Your task to perform on an android device: Is it going to rain tomorrow? Image 0: 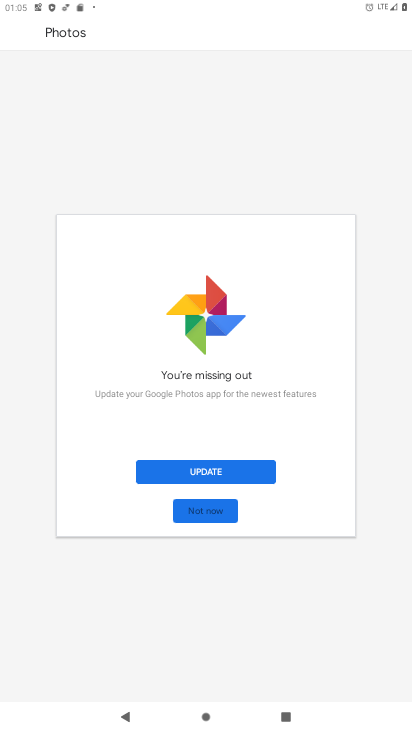
Step 0: press home button
Your task to perform on an android device: Is it going to rain tomorrow? Image 1: 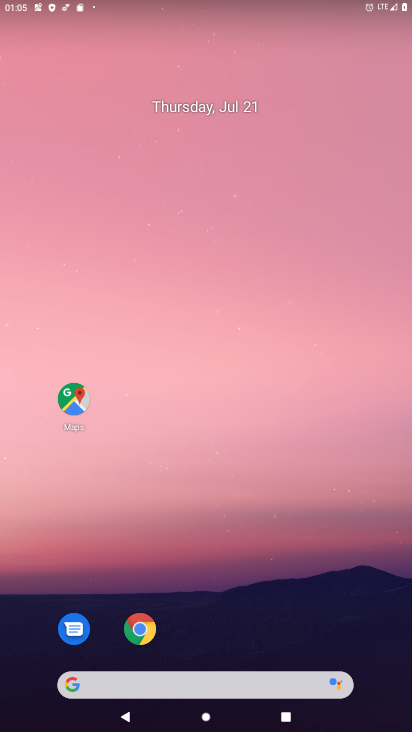
Step 1: click (156, 62)
Your task to perform on an android device: Is it going to rain tomorrow? Image 2: 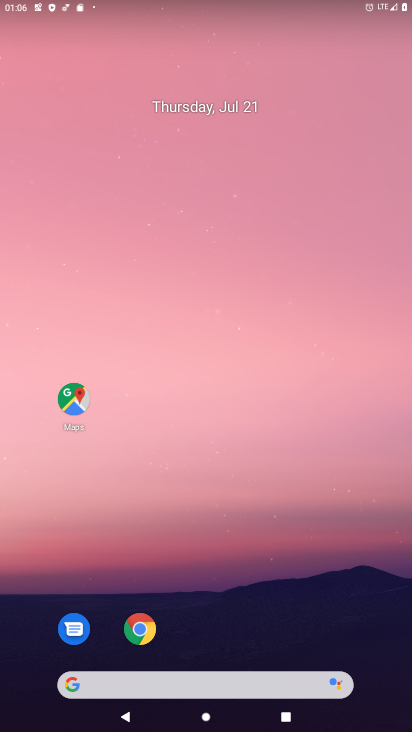
Step 2: drag from (273, 630) to (256, 7)
Your task to perform on an android device: Is it going to rain tomorrow? Image 3: 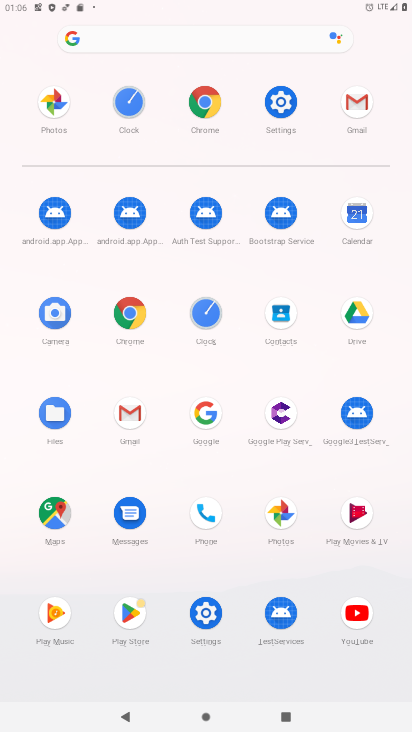
Step 3: click (195, 102)
Your task to perform on an android device: Is it going to rain tomorrow? Image 4: 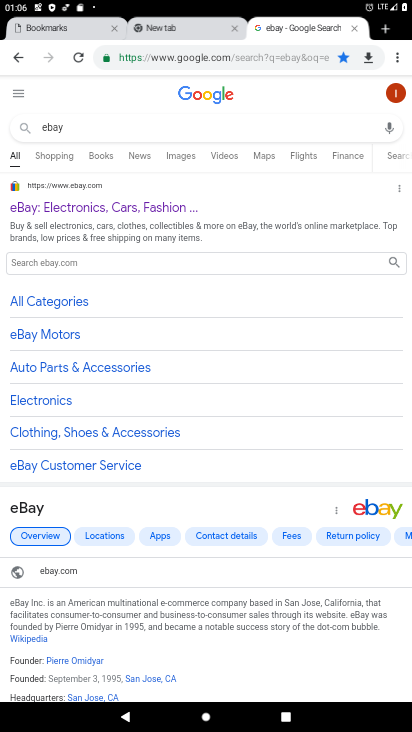
Step 4: click (198, 48)
Your task to perform on an android device: Is it going to rain tomorrow? Image 5: 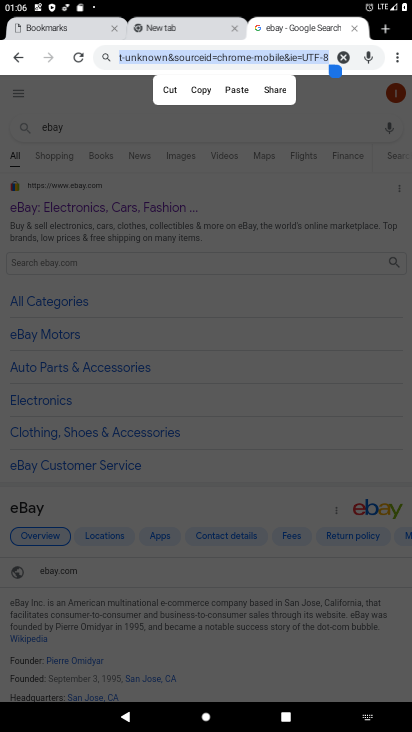
Step 5: type "weather"
Your task to perform on an android device: Is it going to rain tomorrow? Image 6: 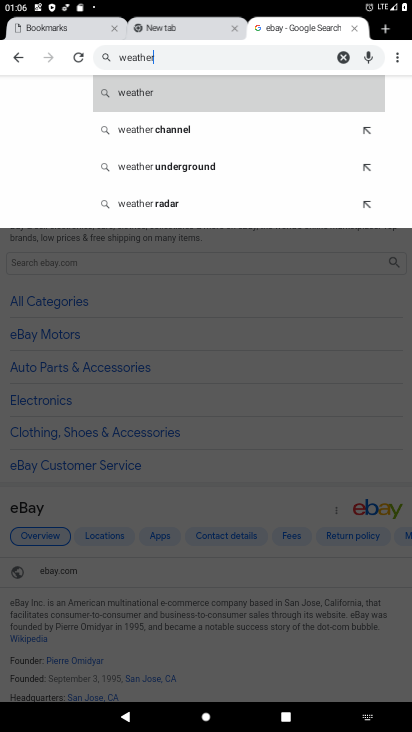
Step 6: click (130, 94)
Your task to perform on an android device: Is it going to rain tomorrow? Image 7: 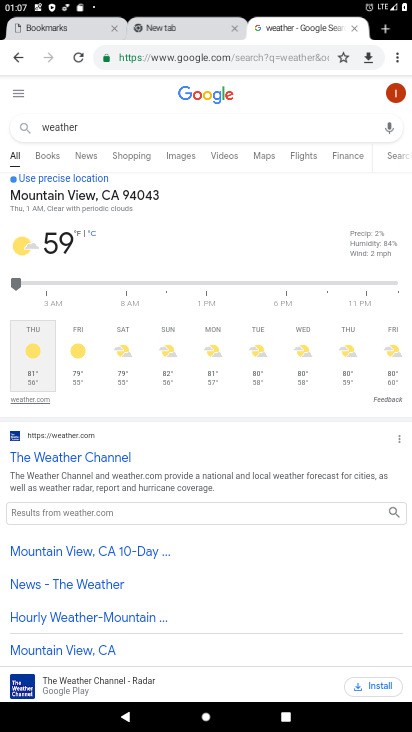
Step 7: click (76, 364)
Your task to perform on an android device: Is it going to rain tomorrow? Image 8: 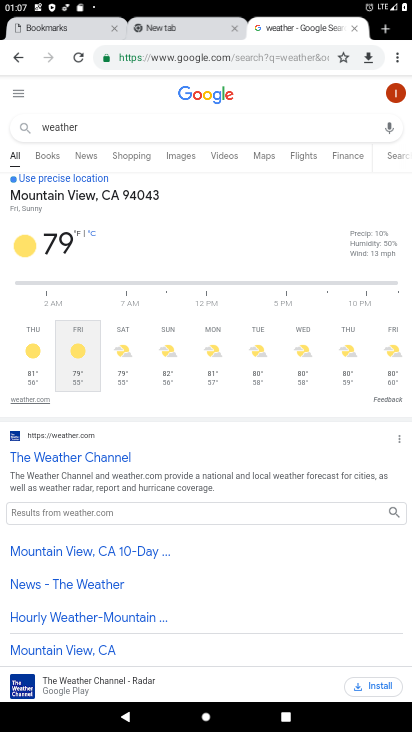
Step 8: task complete